Your task to perform on an android device: change notification settings in the gmail app Image 0: 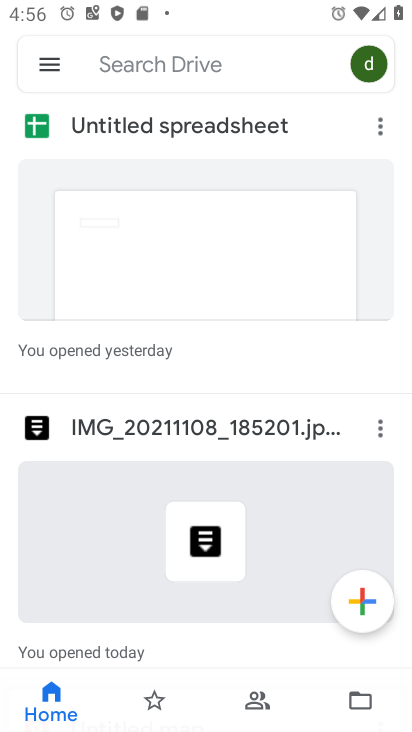
Step 0: press home button
Your task to perform on an android device: change notification settings in the gmail app Image 1: 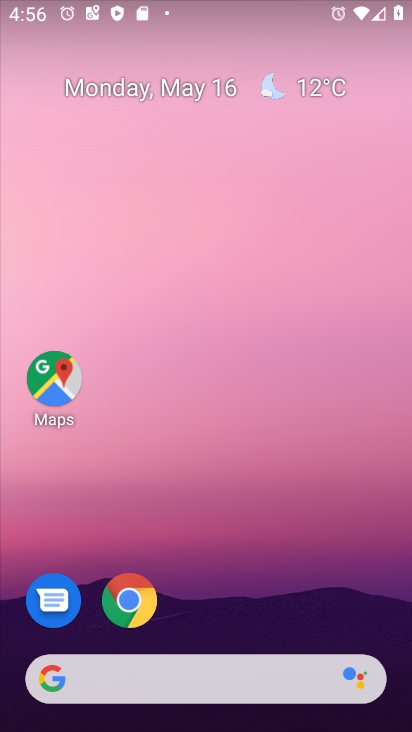
Step 1: drag from (191, 638) to (243, 243)
Your task to perform on an android device: change notification settings in the gmail app Image 2: 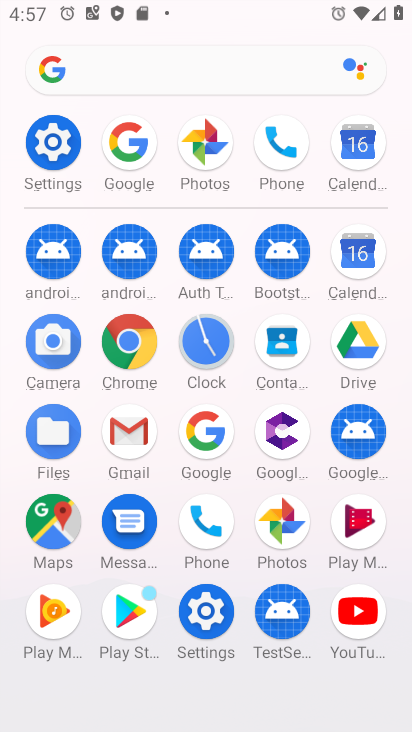
Step 2: click (142, 439)
Your task to perform on an android device: change notification settings in the gmail app Image 3: 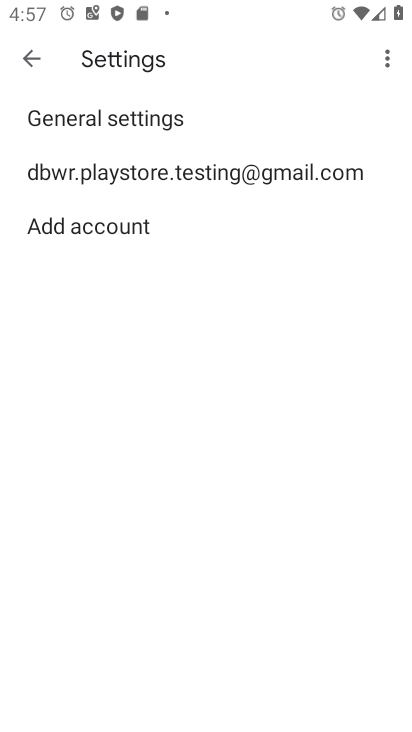
Step 3: click (105, 116)
Your task to perform on an android device: change notification settings in the gmail app Image 4: 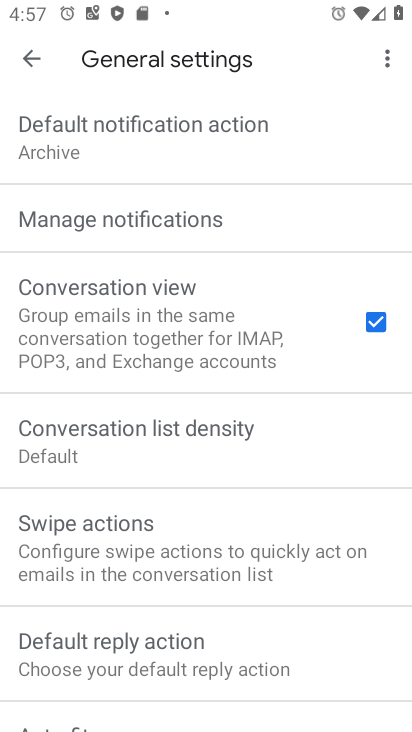
Step 4: click (87, 222)
Your task to perform on an android device: change notification settings in the gmail app Image 5: 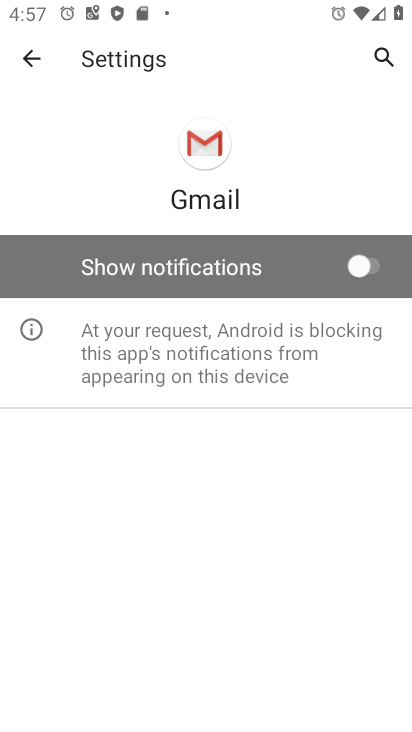
Step 5: click (376, 260)
Your task to perform on an android device: change notification settings in the gmail app Image 6: 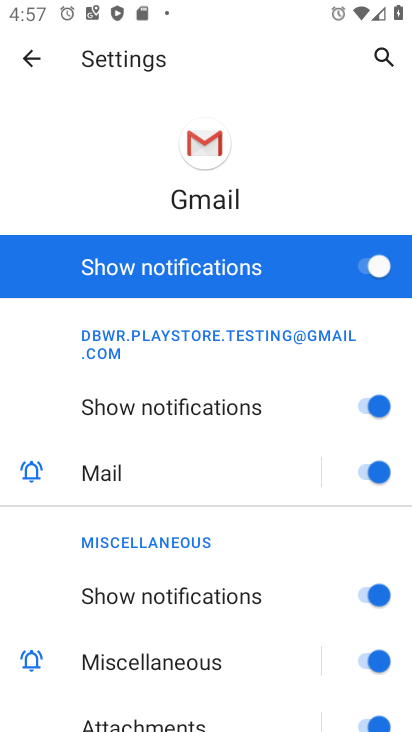
Step 6: task complete